Your task to perform on an android device: Toggle the flashlight Image 0: 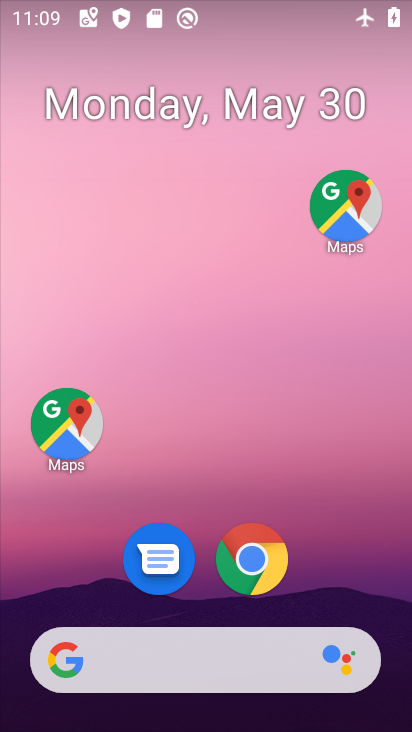
Step 0: drag from (350, 489) to (347, 4)
Your task to perform on an android device: Toggle the flashlight Image 1: 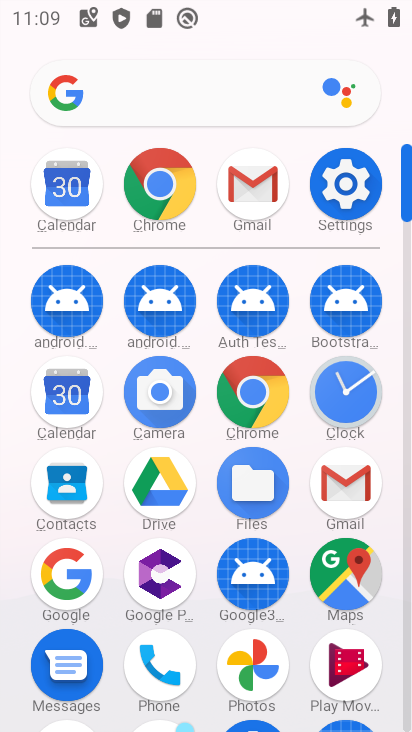
Step 1: click (346, 164)
Your task to perform on an android device: Toggle the flashlight Image 2: 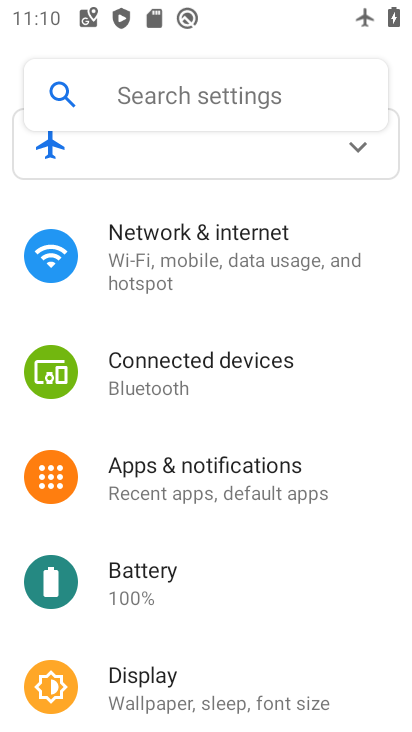
Step 2: click (151, 691)
Your task to perform on an android device: Toggle the flashlight Image 3: 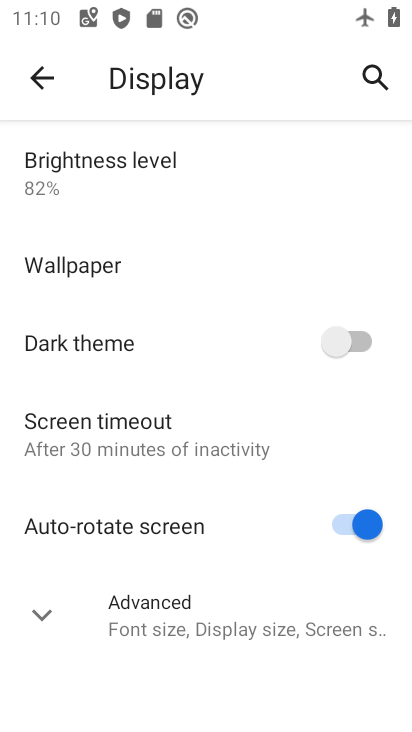
Step 3: task complete